Your task to perform on an android device: Go to notification settings Image 0: 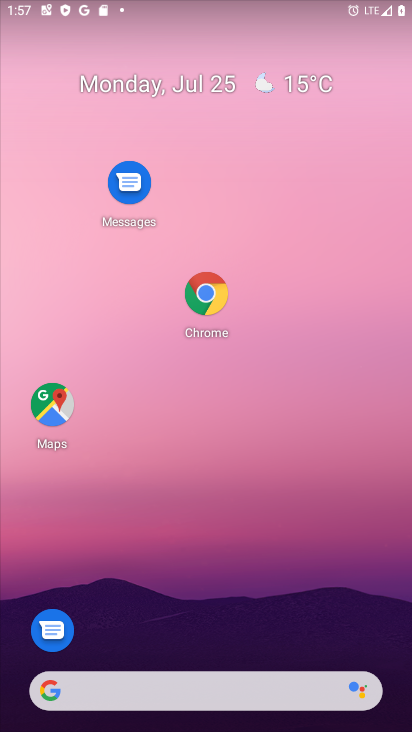
Step 0: drag from (216, 566) to (203, 108)
Your task to perform on an android device: Go to notification settings Image 1: 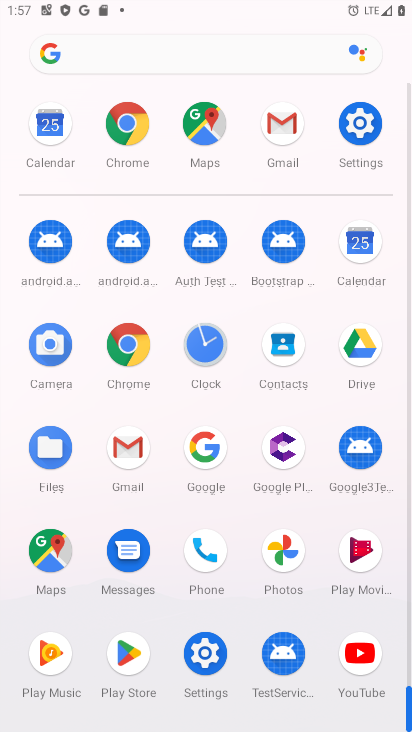
Step 1: click (217, 651)
Your task to perform on an android device: Go to notification settings Image 2: 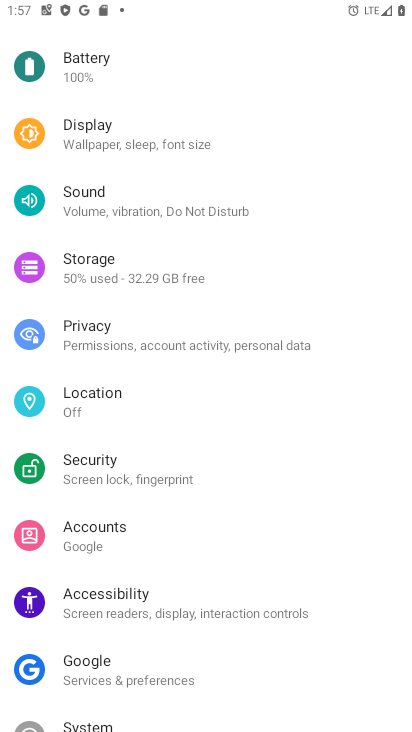
Step 2: drag from (241, 156) to (172, 604)
Your task to perform on an android device: Go to notification settings Image 3: 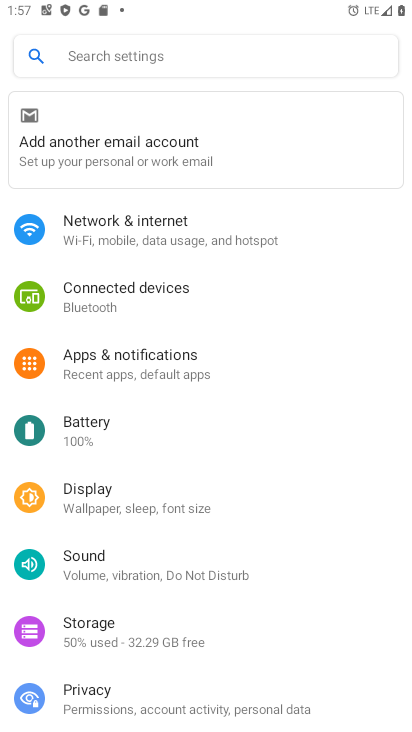
Step 3: click (119, 369)
Your task to perform on an android device: Go to notification settings Image 4: 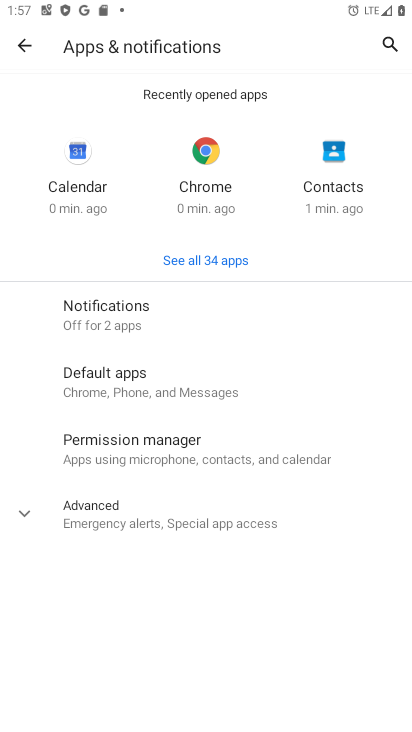
Step 4: click (131, 298)
Your task to perform on an android device: Go to notification settings Image 5: 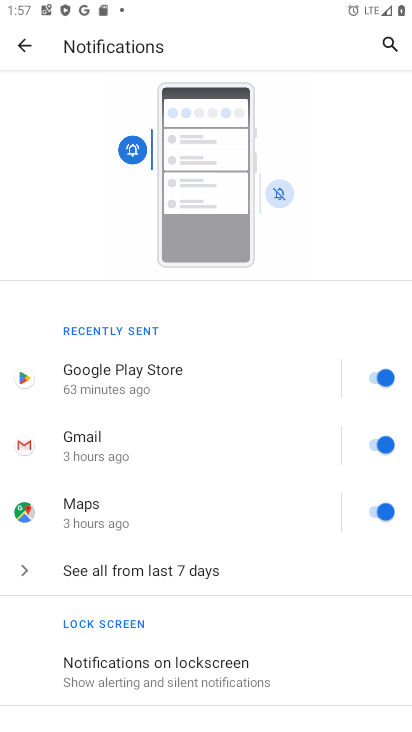
Step 5: task complete